Your task to perform on an android device: toggle notification dots Image 0: 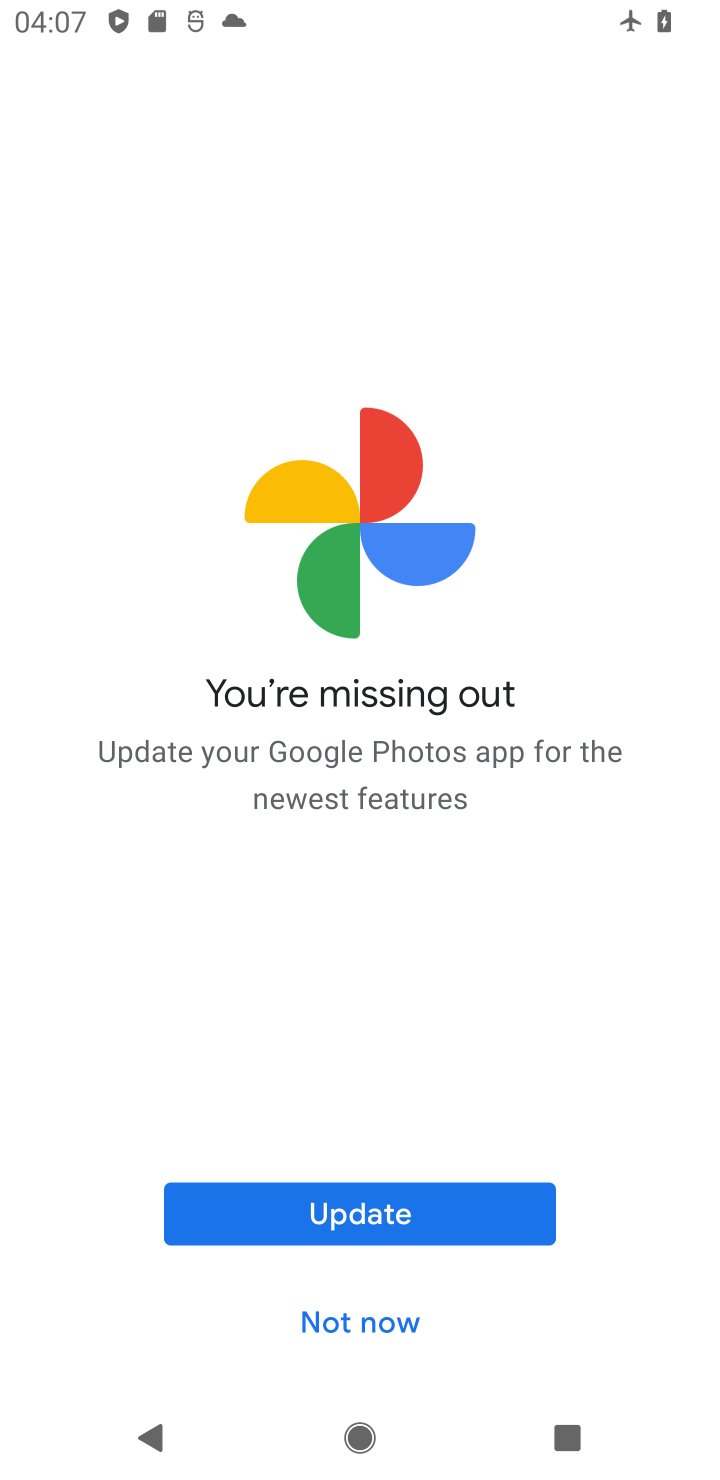
Step 0: press home button
Your task to perform on an android device: toggle notification dots Image 1: 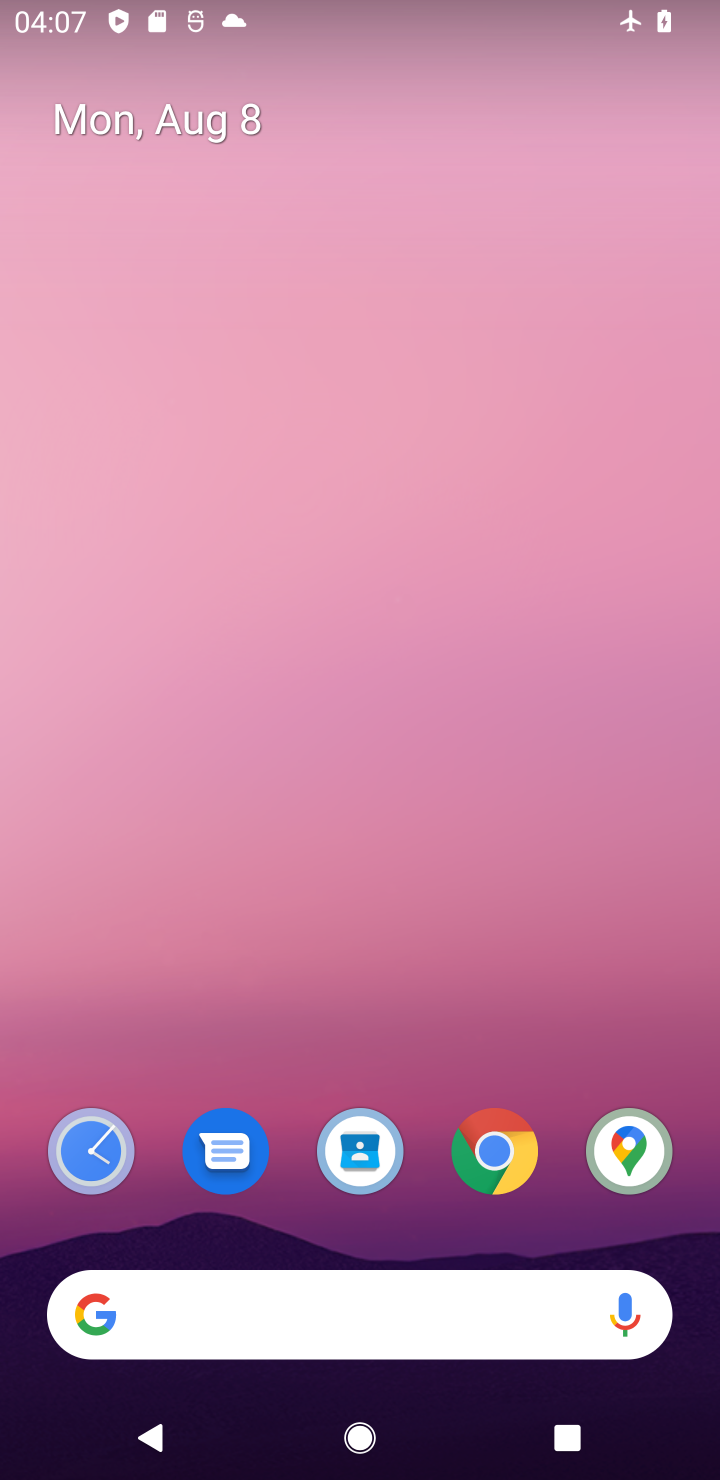
Step 1: drag from (350, 1012) to (341, 308)
Your task to perform on an android device: toggle notification dots Image 2: 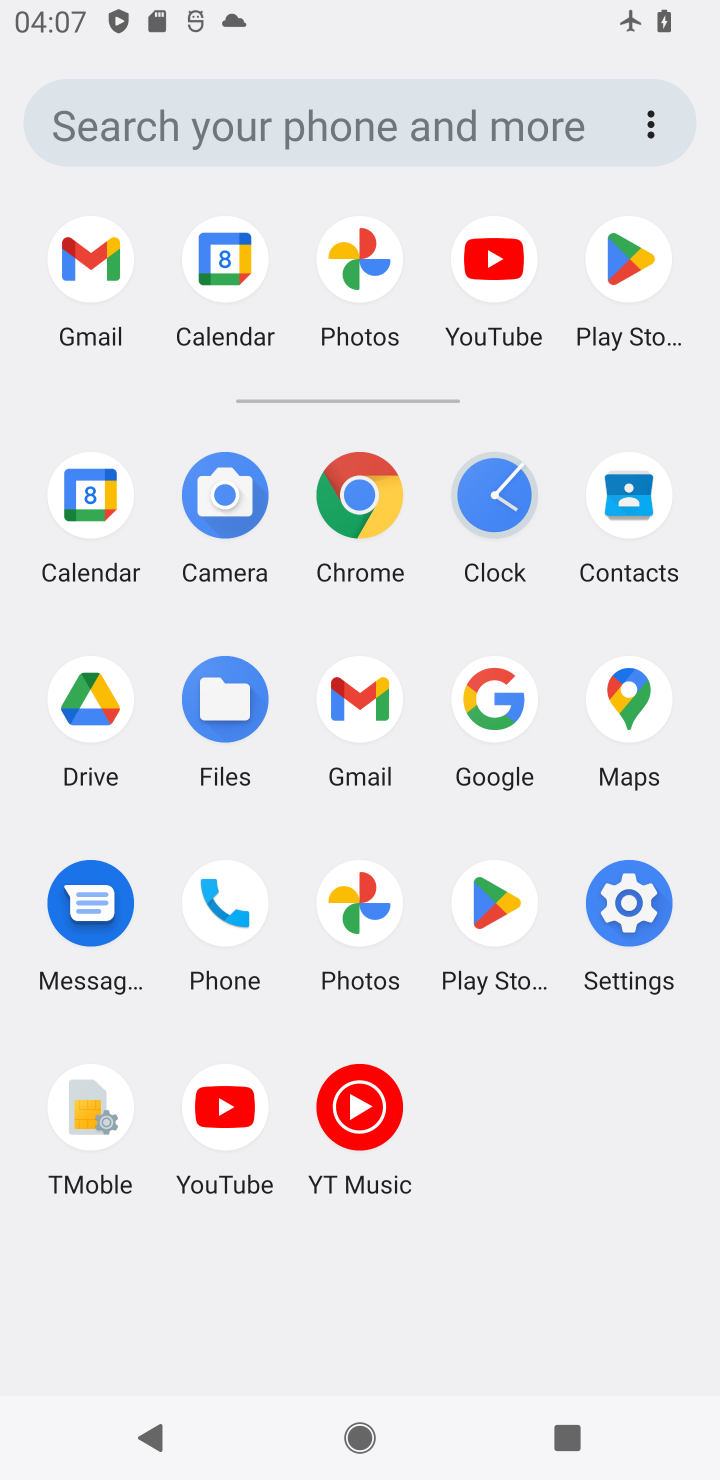
Step 2: click (622, 905)
Your task to perform on an android device: toggle notification dots Image 3: 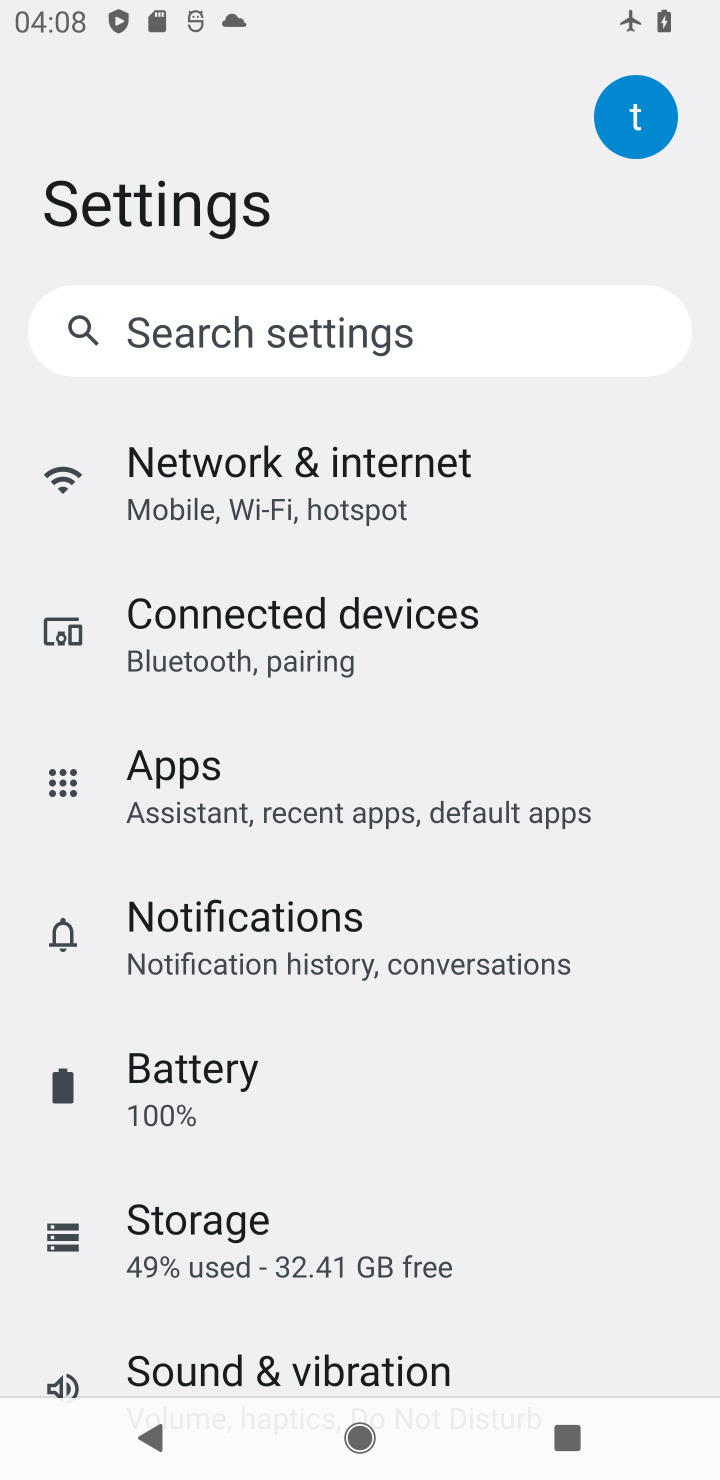
Step 3: click (185, 956)
Your task to perform on an android device: toggle notification dots Image 4: 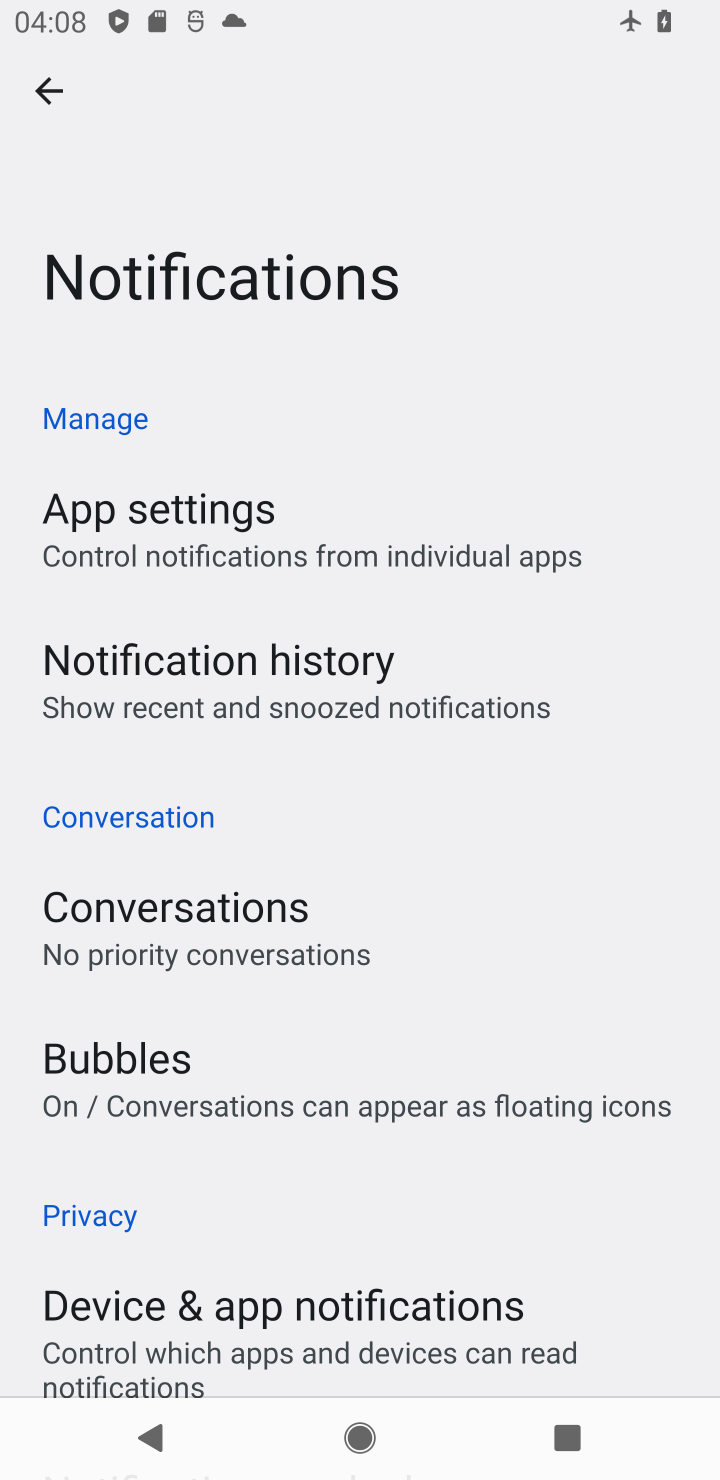
Step 4: drag from (405, 1077) to (405, 585)
Your task to perform on an android device: toggle notification dots Image 5: 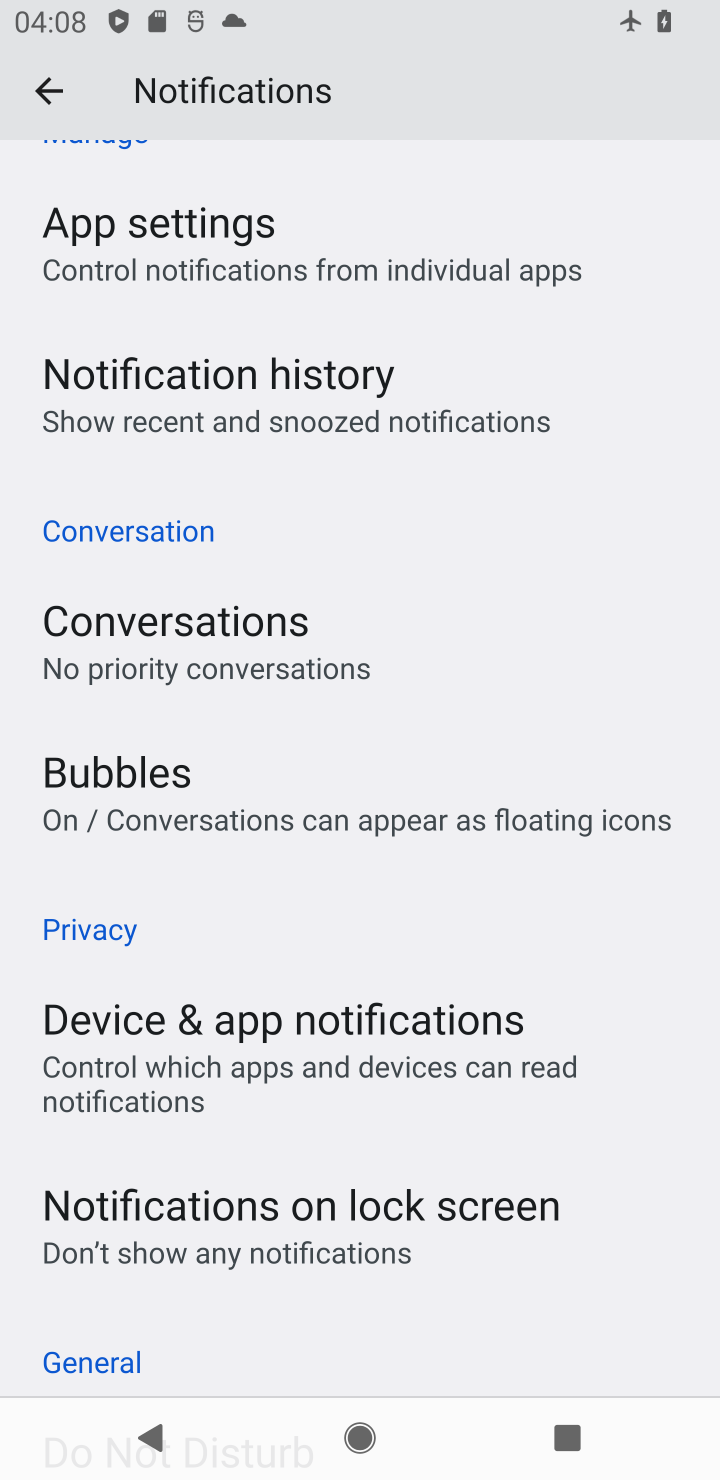
Step 5: drag from (388, 1101) to (407, 593)
Your task to perform on an android device: toggle notification dots Image 6: 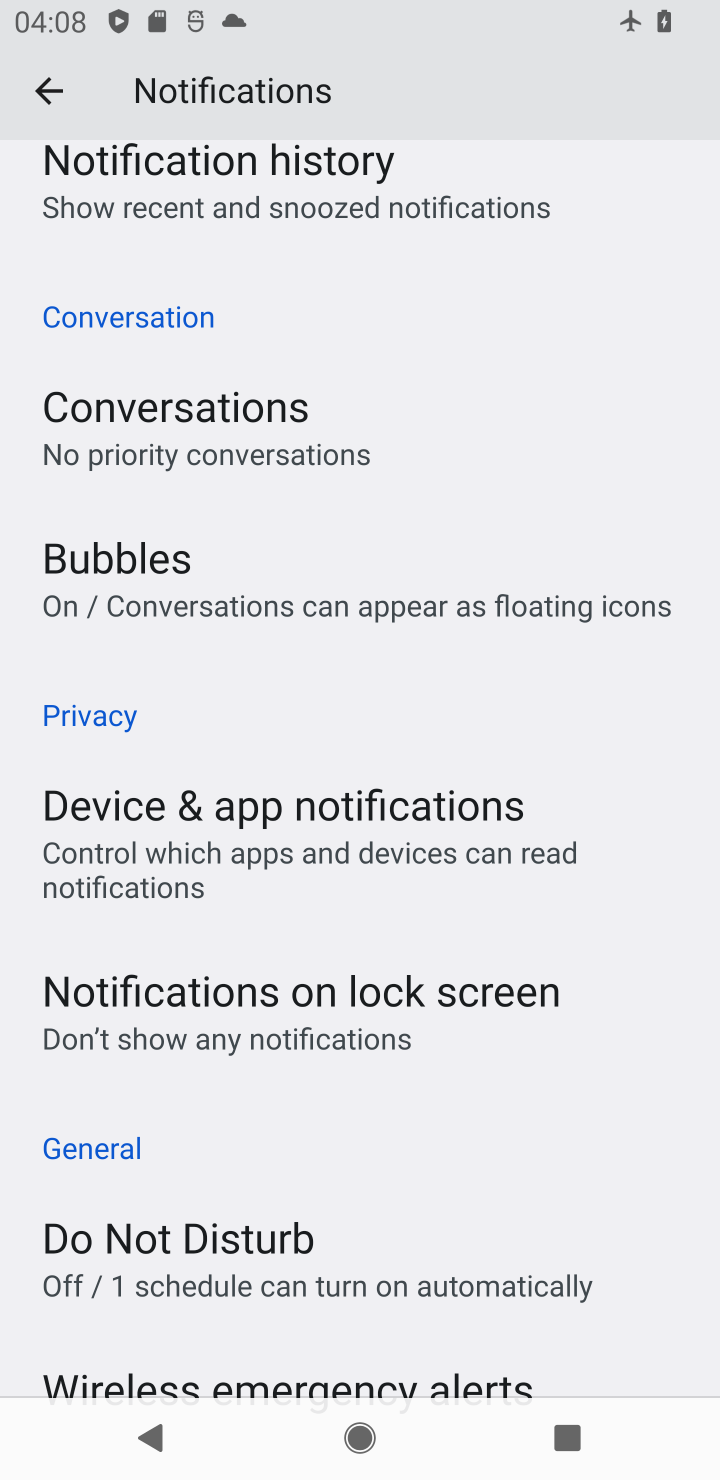
Step 6: drag from (412, 1181) to (418, 828)
Your task to perform on an android device: toggle notification dots Image 7: 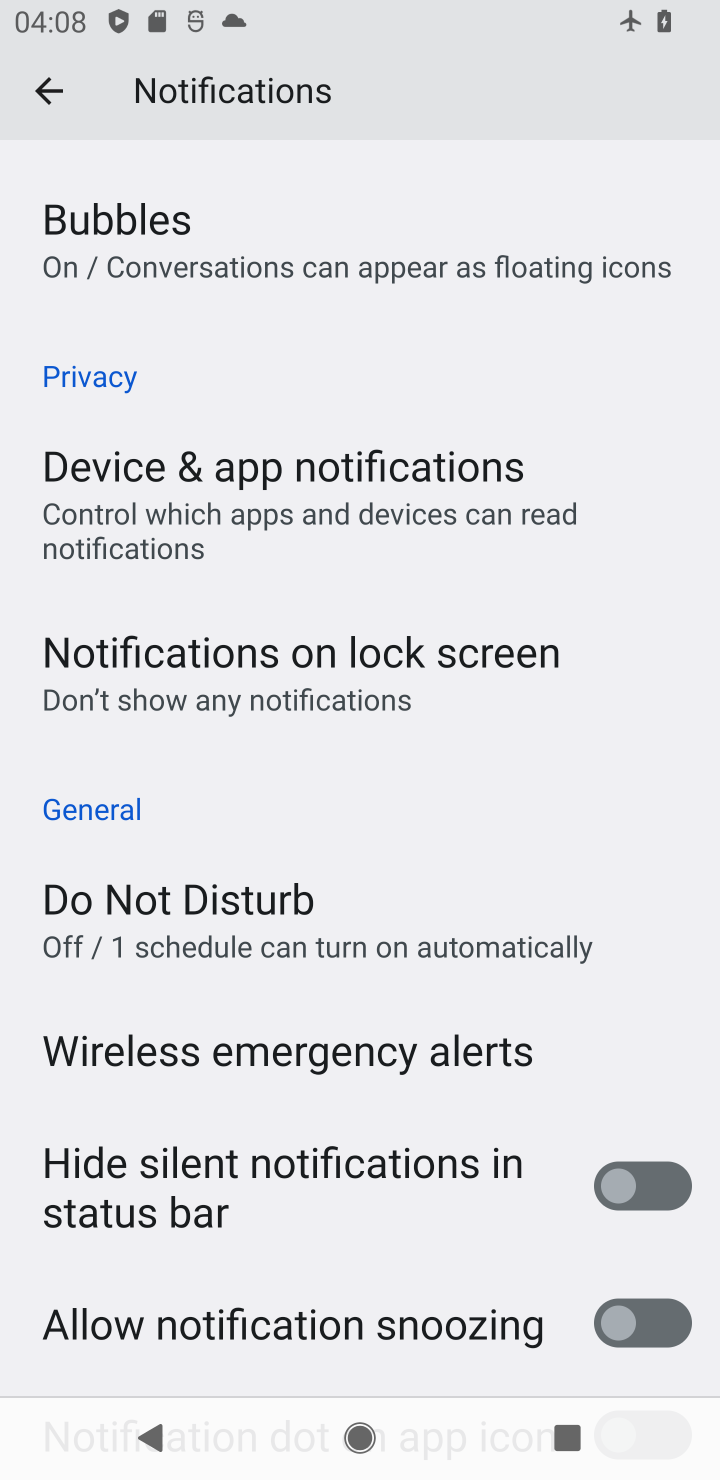
Step 7: drag from (440, 512) to (431, 1026)
Your task to perform on an android device: toggle notification dots Image 8: 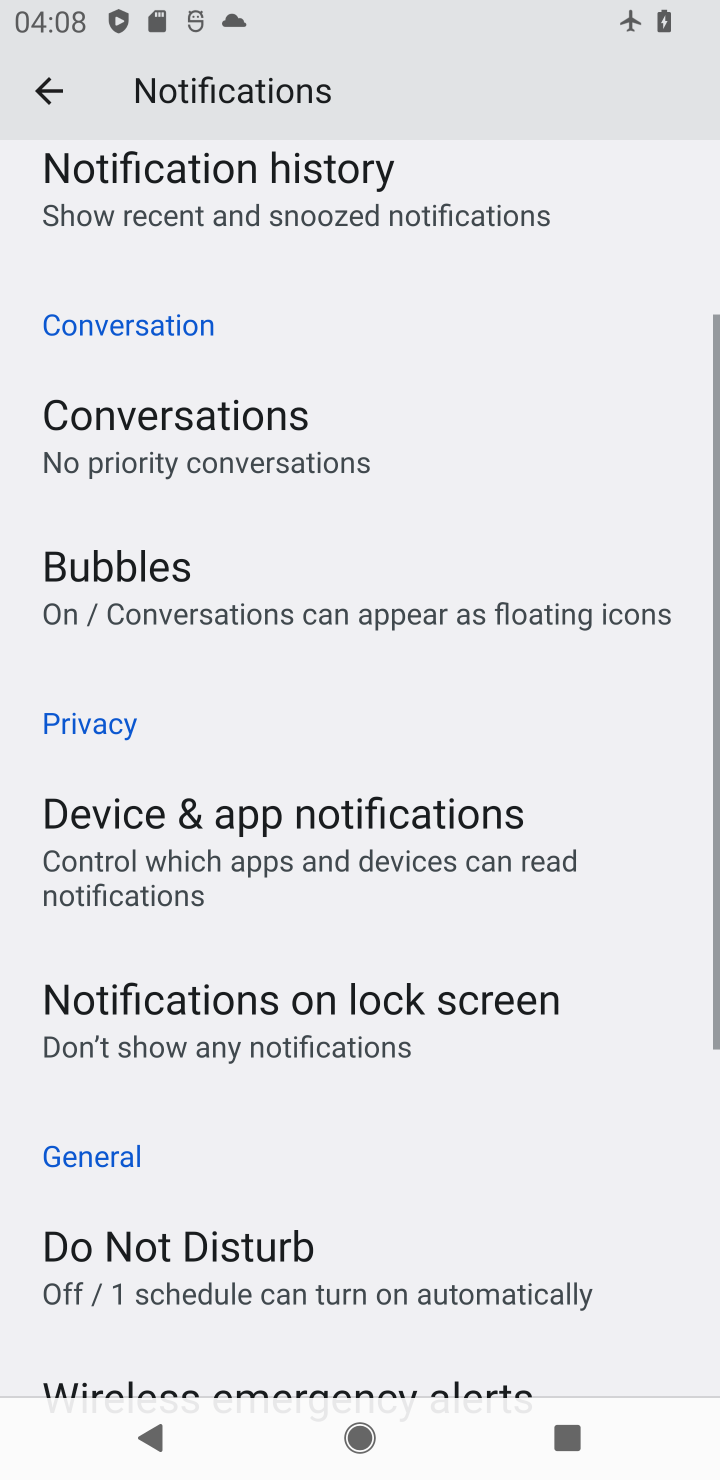
Step 8: drag from (391, 477) to (447, 1085)
Your task to perform on an android device: toggle notification dots Image 9: 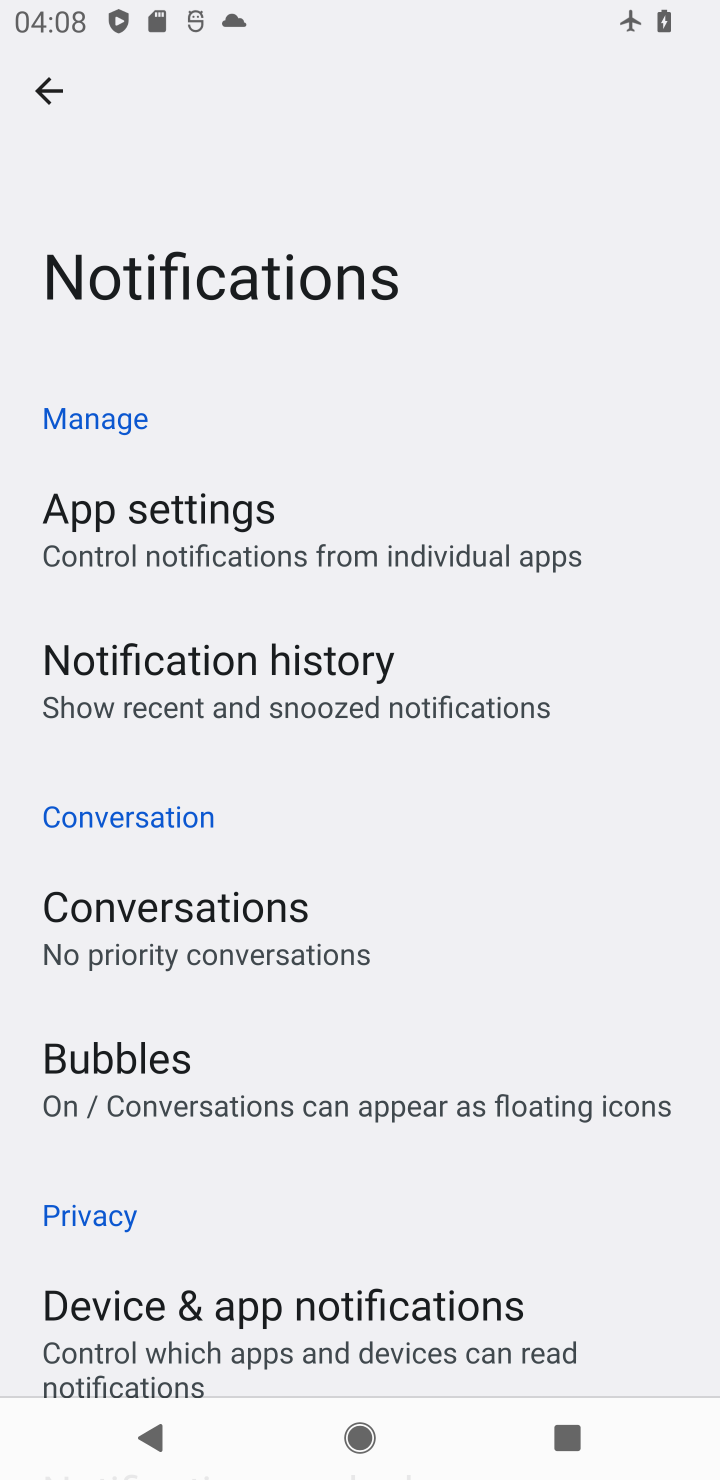
Step 9: drag from (390, 1041) to (399, 447)
Your task to perform on an android device: toggle notification dots Image 10: 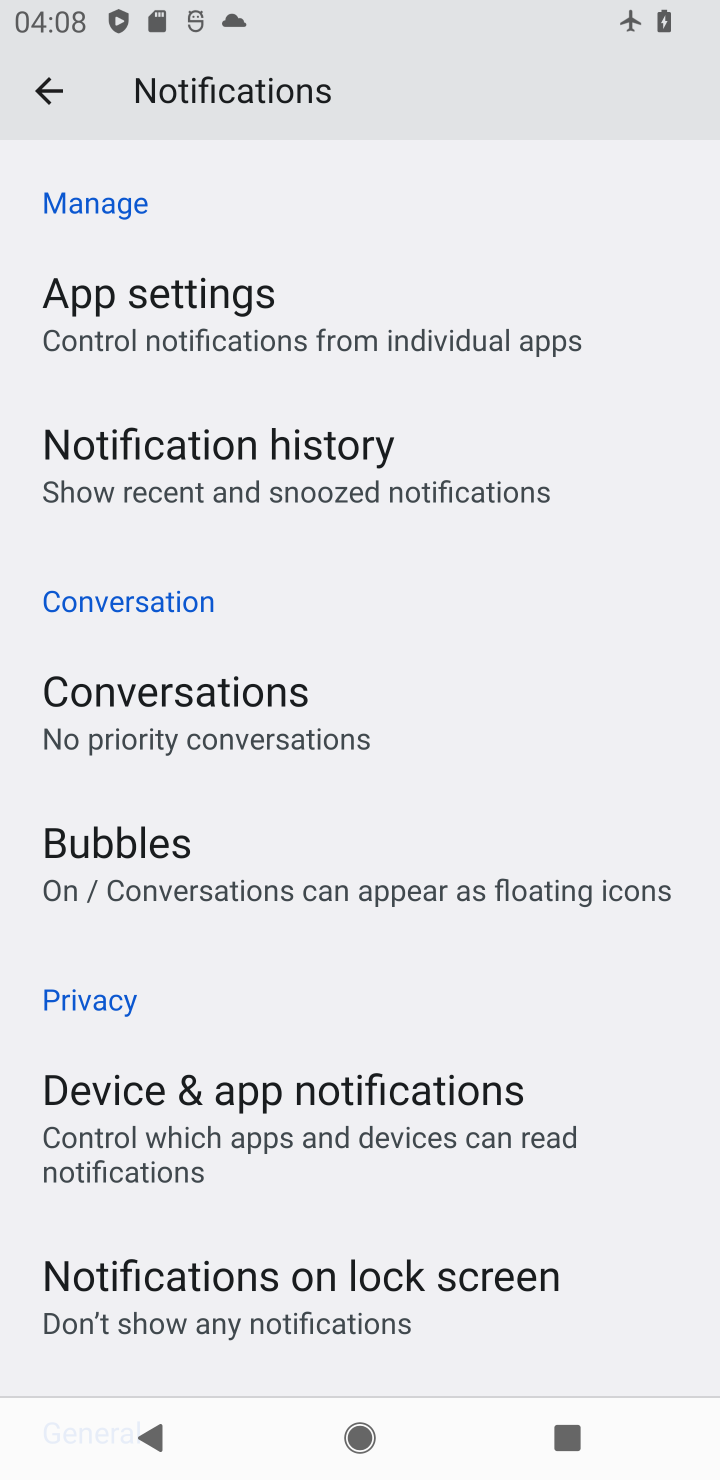
Step 10: drag from (408, 1107) to (384, 484)
Your task to perform on an android device: toggle notification dots Image 11: 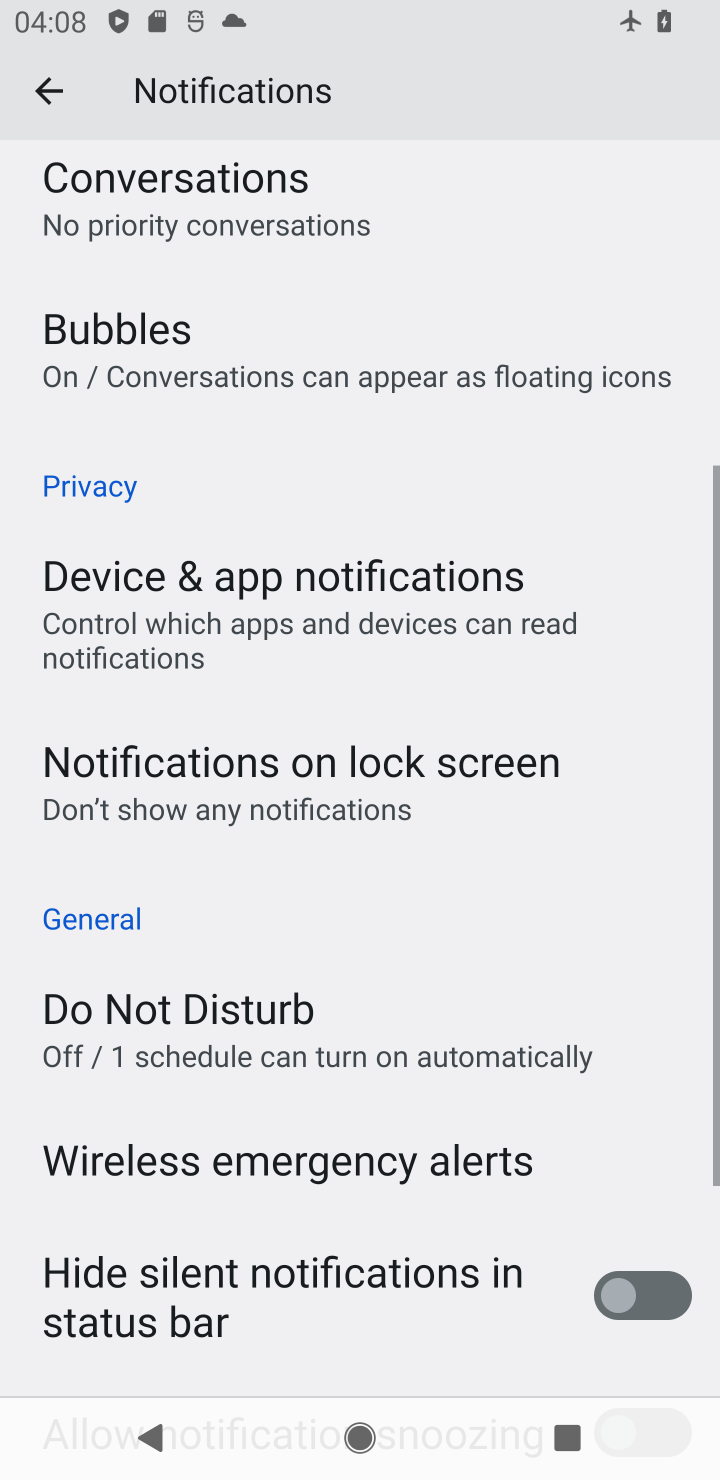
Step 11: drag from (332, 1084) to (341, 397)
Your task to perform on an android device: toggle notification dots Image 12: 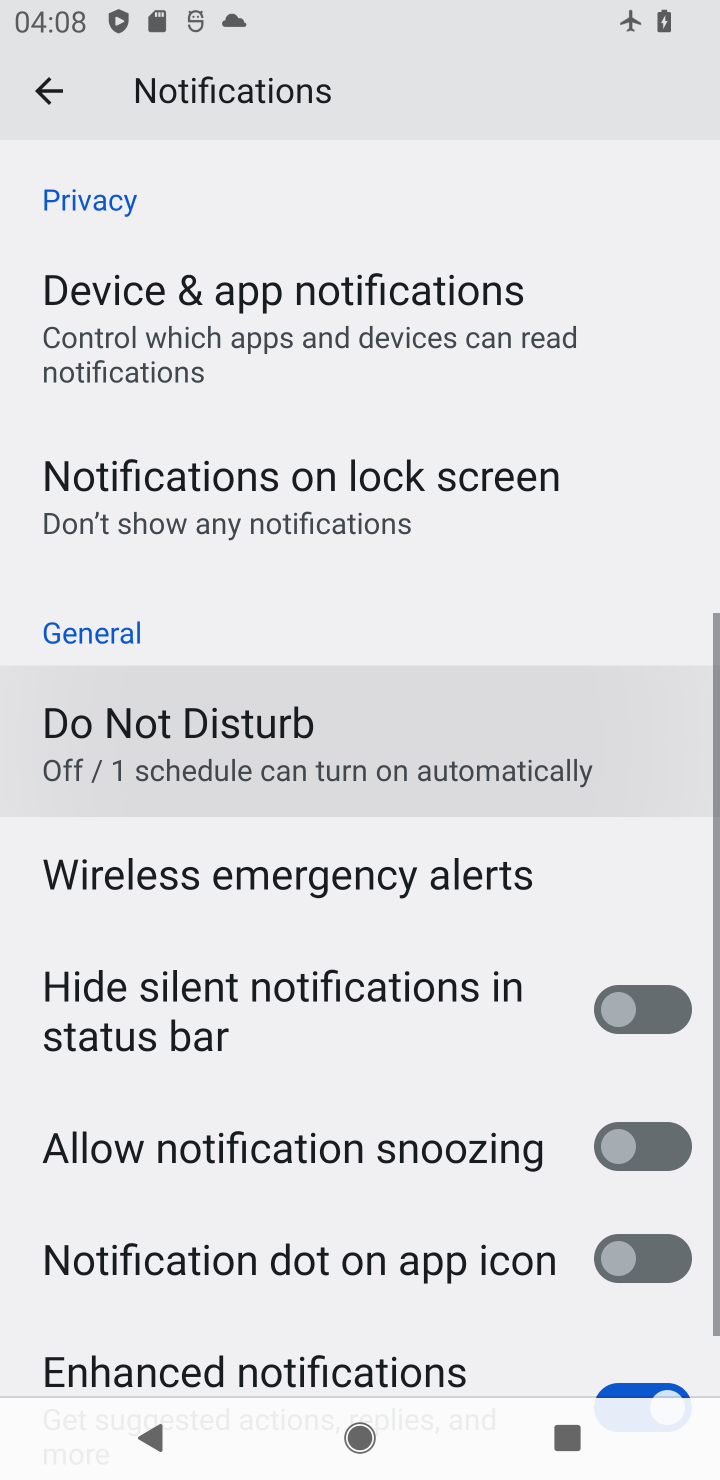
Step 12: drag from (338, 1115) to (412, 484)
Your task to perform on an android device: toggle notification dots Image 13: 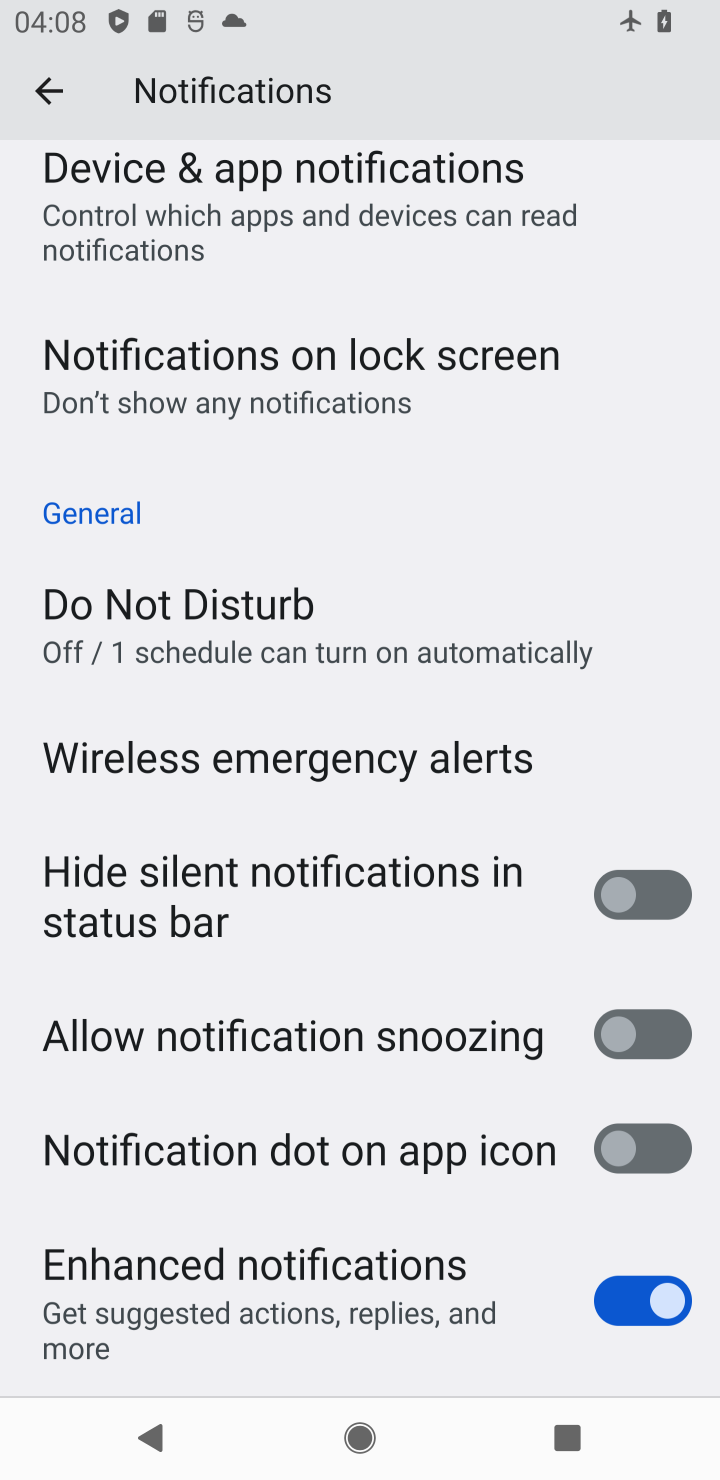
Step 13: drag from (351, 1194) to (408, 427)
Your task to perform on an android device: toggle notification dots Image 14: 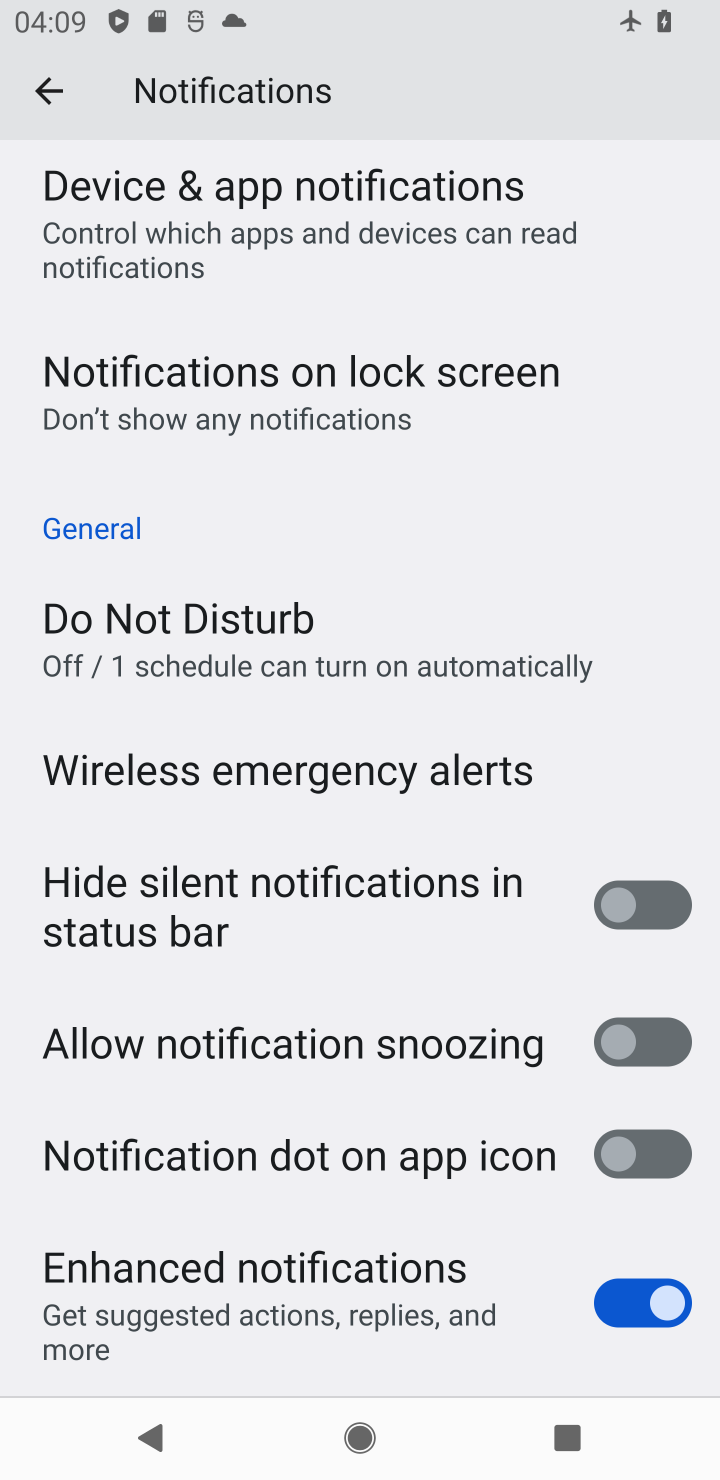
Step 14: click (670, 1149)
Your task to perform on an android device: toggle notification dots Image 15: 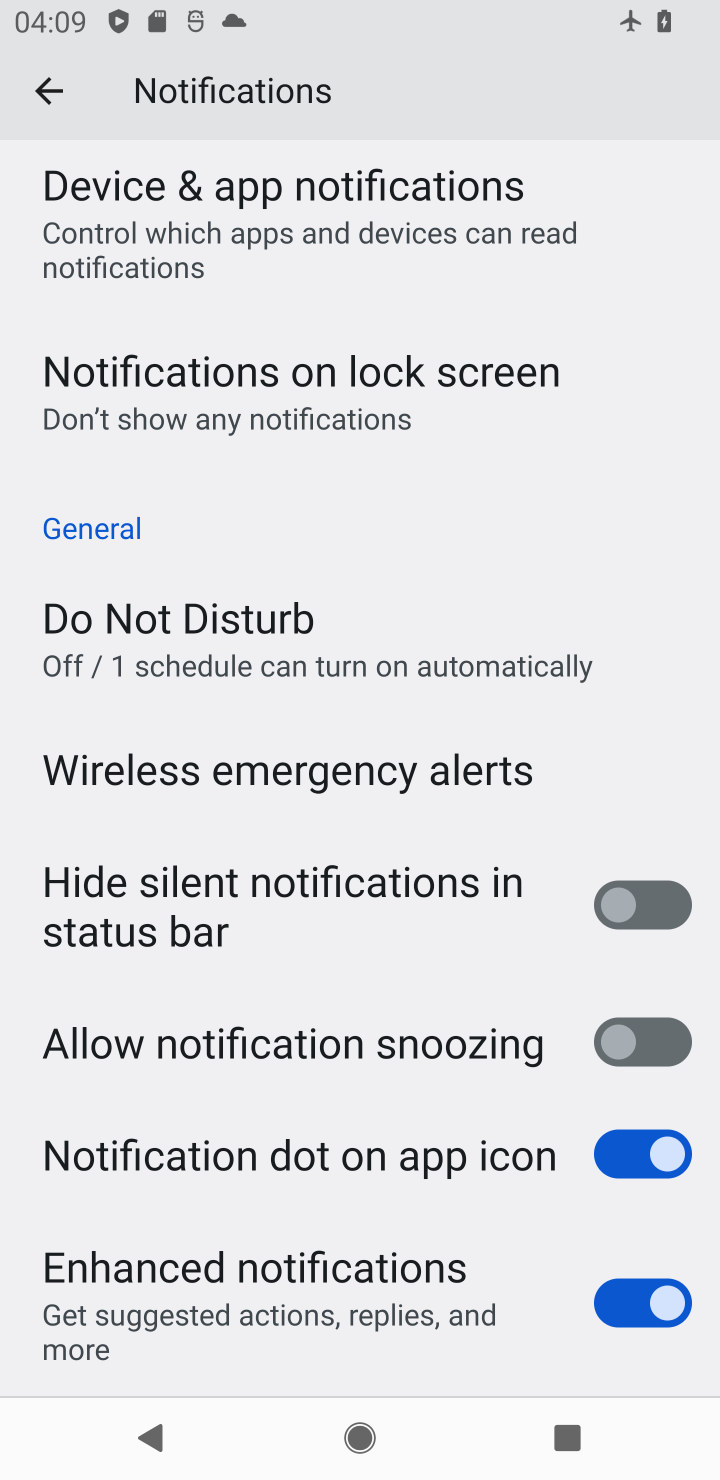
Step 15: task complete